Your task to perform on an android device: open a new tab in the chrome app Image 0: 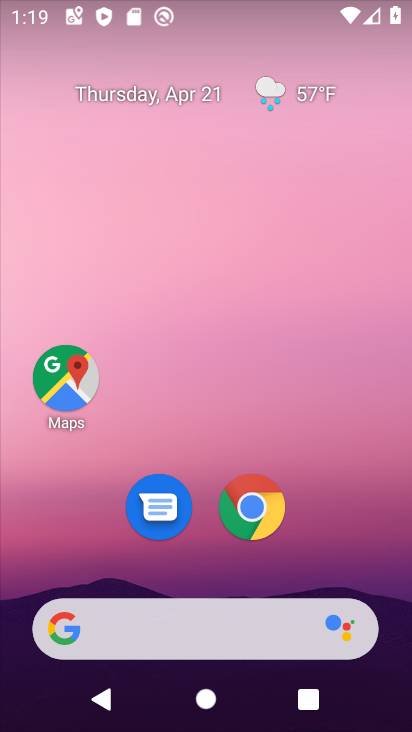
Step 0: click (251, 501)
Your task to perform on an android device: open a new tab in the chrome app Image 1: 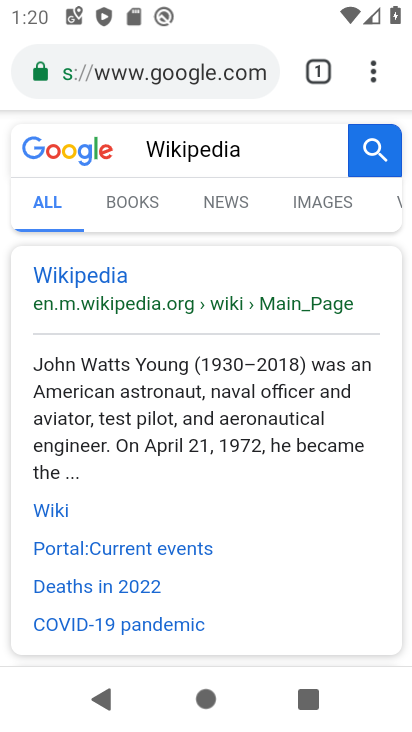
Step 1: click (372, 72)
Your task to perform on an android device: open a new tab in the chrome app Image 2: 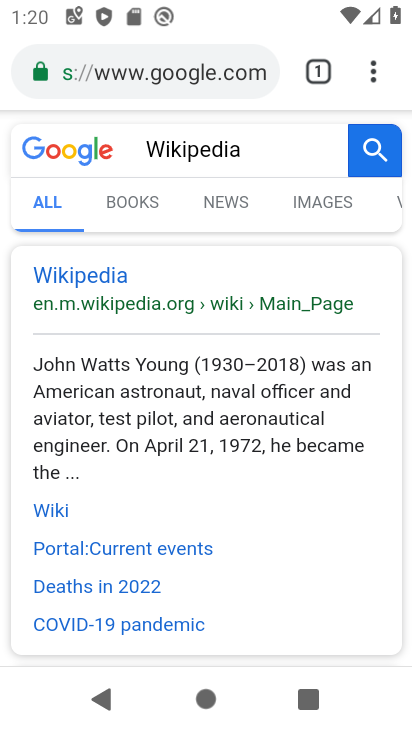
Step 2: click (383, 72)
Your task to perform on an android device: open a new tab in the chrome app Image 3: 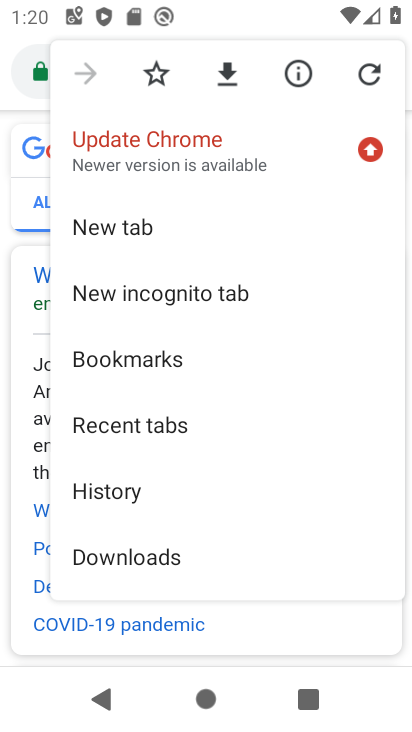
Step 3: click (113, 224)
Your task to perform on an android device: open a new tab in the chrome app Image 4: 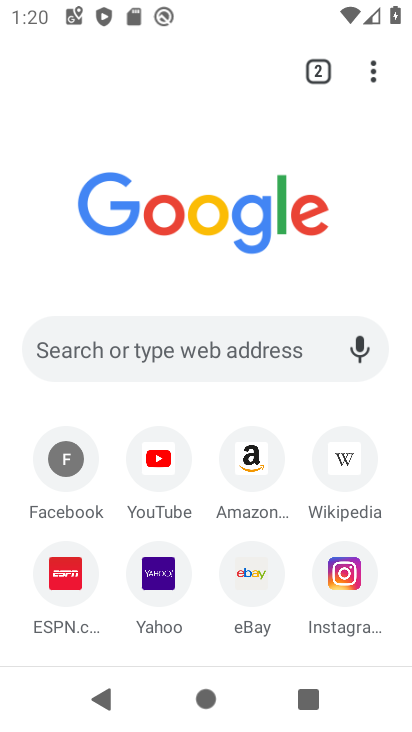
Step 4: task complete